Your task to perform on an android device: Open Google Maps Image 0: 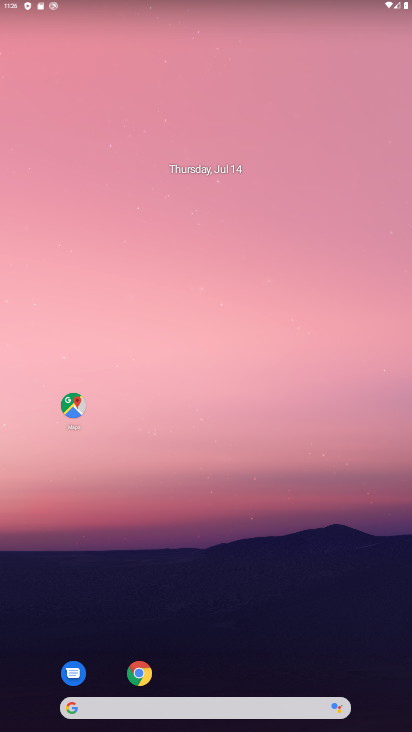
Step 0: click (73, 406)
Your task to perform on an android device: Open Google Maps Image 1: 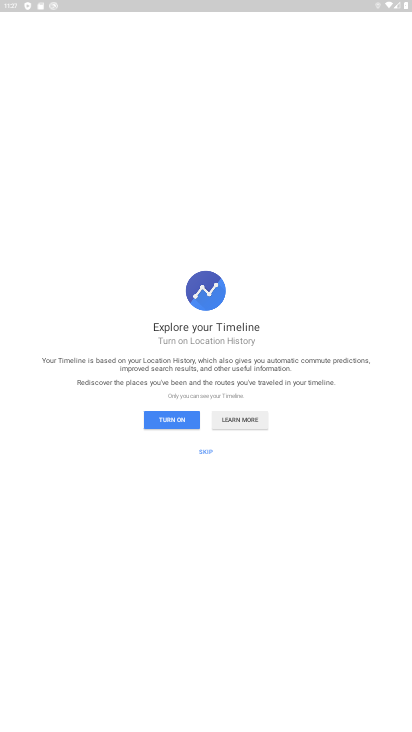
Step 1: click (209, 450)
Your task to perform on an android device: Open Google Maps Image 2: 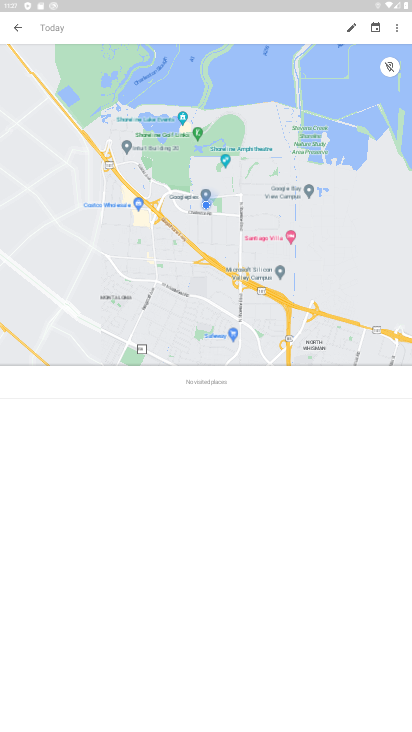
Step 2: click (19, 24)
Your task to perform on an android device: Open Google Maps Image 3: 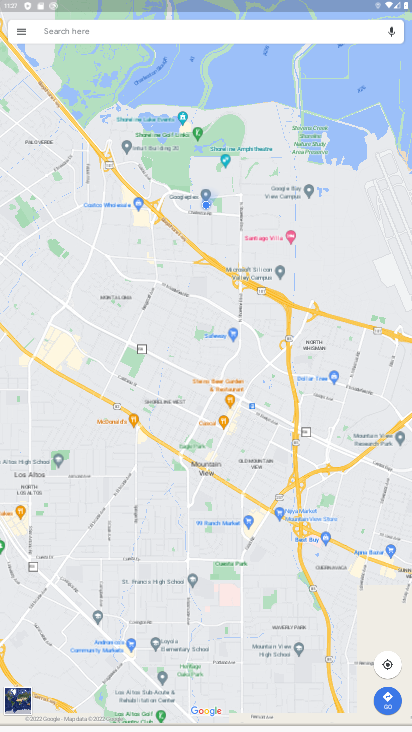
Step 3: task complete